Your task to perform on an android device: install app "Microsoft Outlook" Image 0: 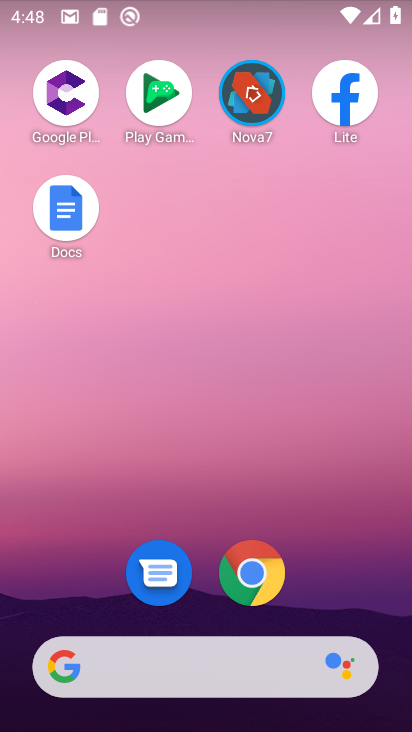
Step 0: drag from (198, 527) to (221, 86)
Your task to perform on an android device: install app "Microsoft Outlook" Image 1: 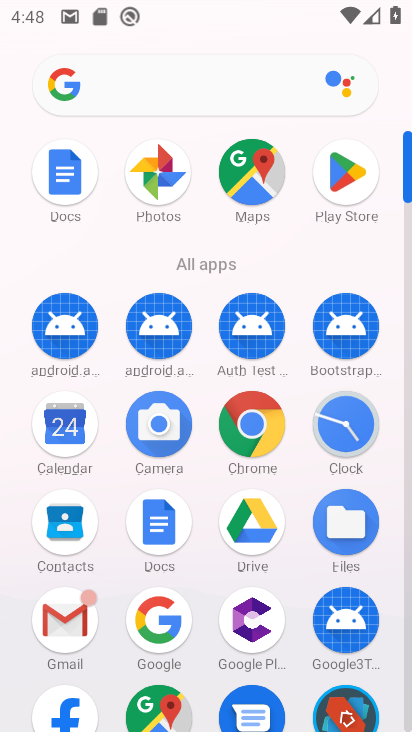
Step 1: click (347, 169)
Your task to perform on an android device: install app "Microsoft Outlook" Image 2: 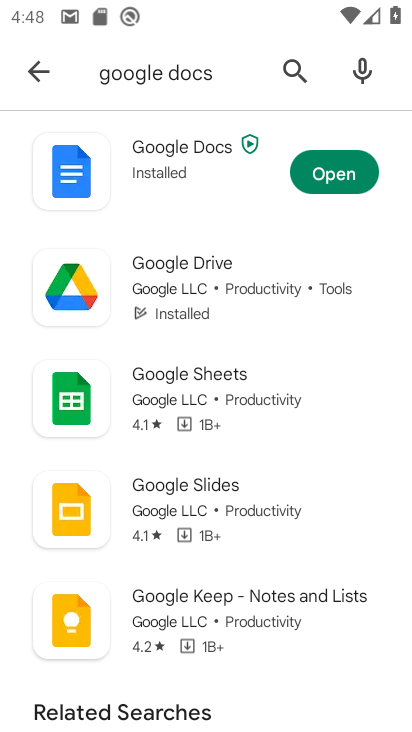
Step 2: click (39, 70)
Your task to perform on an android device: install app "Microsoft Outlook" Image 3: 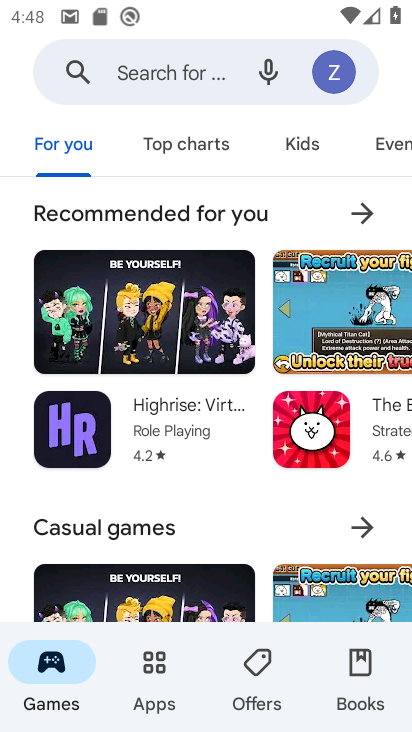
Step 3: click (173, 87)
Your task to perform on an android device: install app "Microsoft Outlook" Image 4: 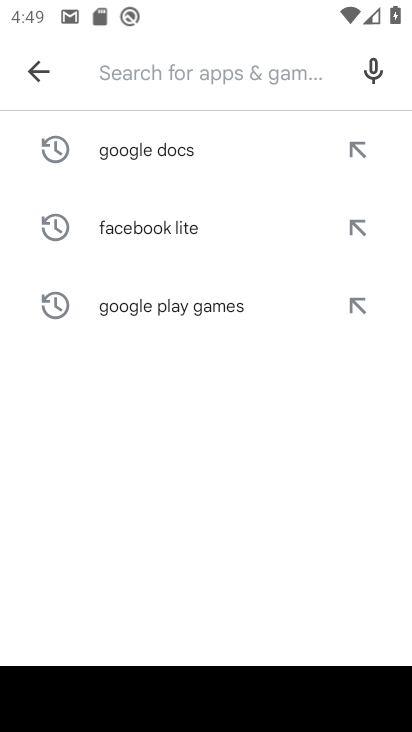
Step 4: type "Microsoft Outlook"
Your task to perform on an android device: install app "Microsoft Outlook" Image 5: 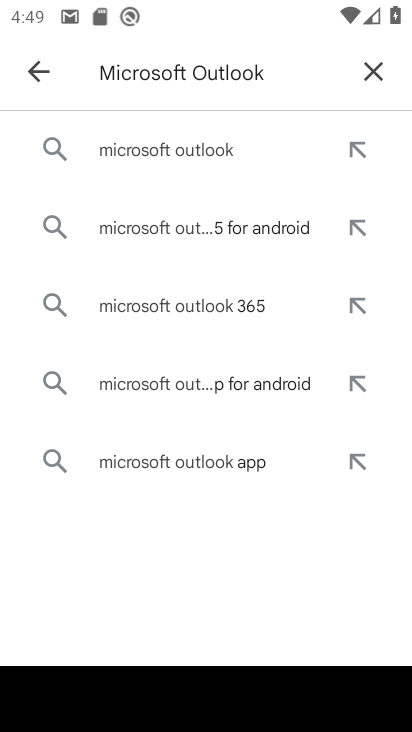
Step 5: click (171, 142)
Your task to perform on an android device: install app "Microsoft Outlook" Image 6: 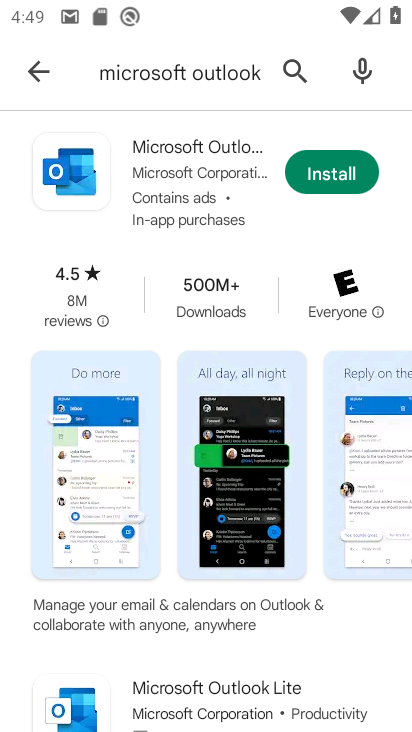
Step 6: click (313, 177)
Your task to perform on an android device: install app "Microsoft Outlook" Image 7: 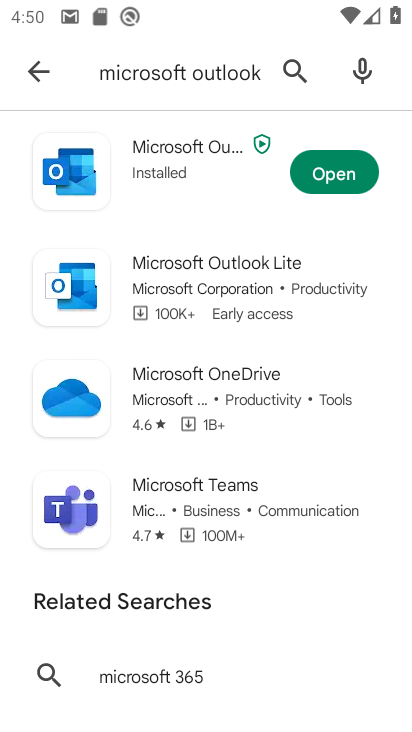
Step 7: click (313, 177)
Your task to perform on an android device: install app "Microsoft Outlook" Image 8: 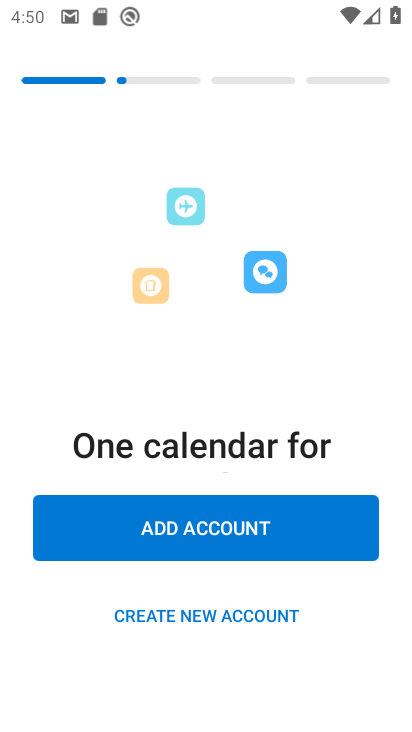
Step 8: task complete